Your task to perform on an android device: open chrome privacy settings Image 0: 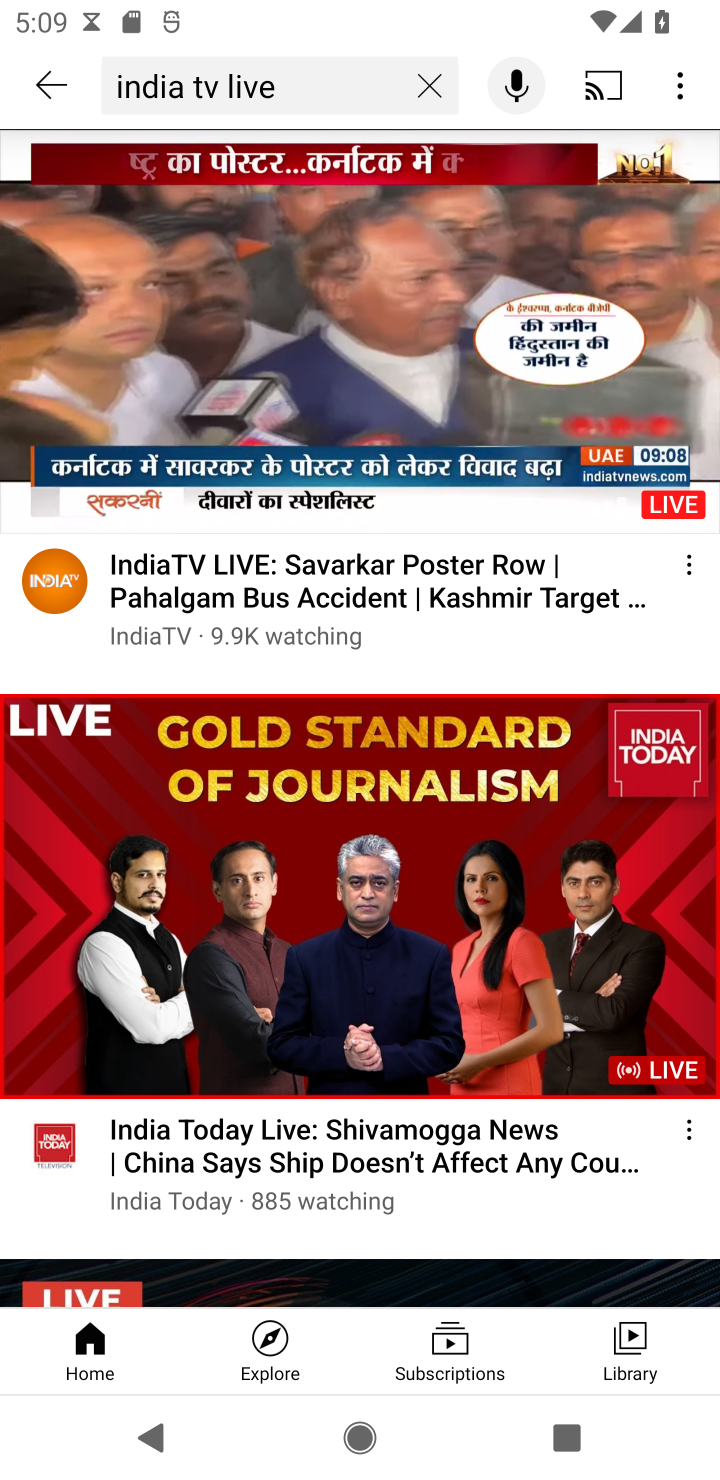
Step 0: press home button
Your task to perform on an android device: open chrome privacy settings Image 1: 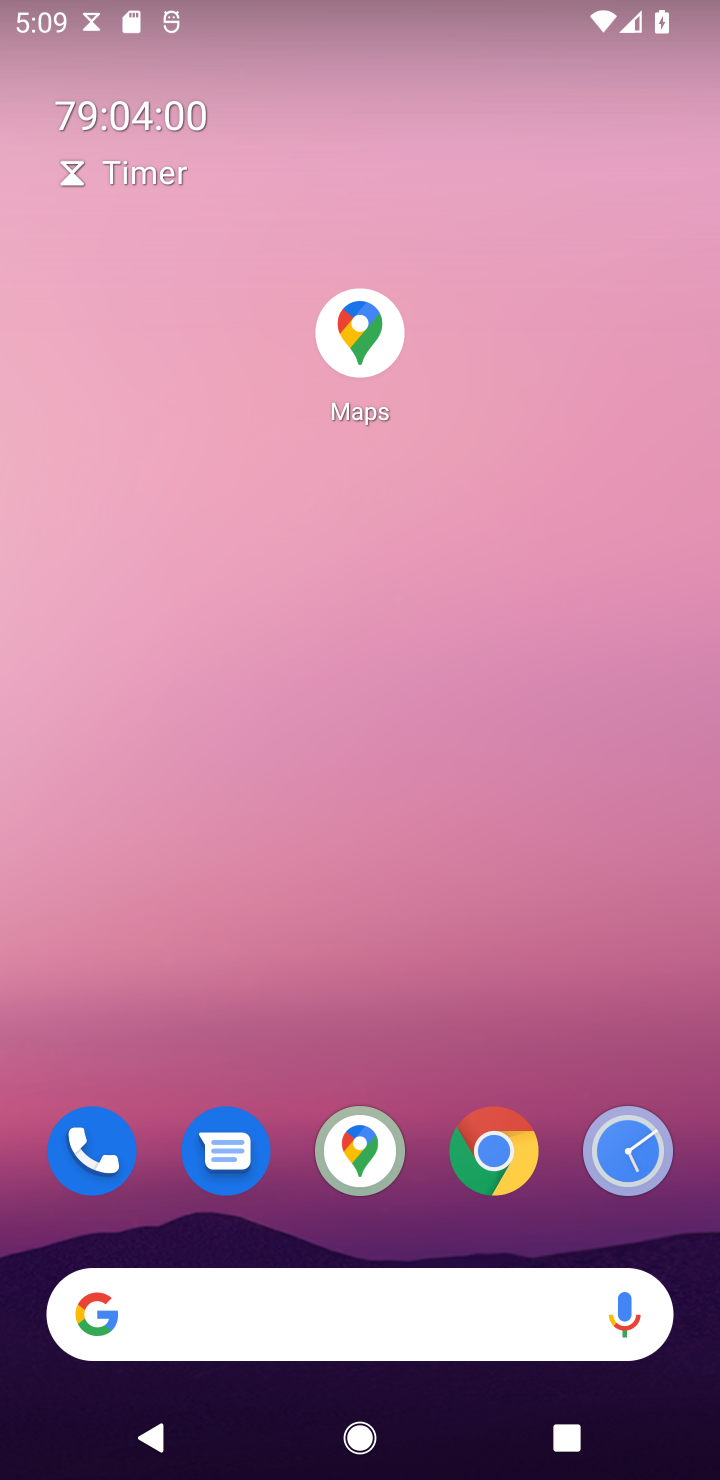
Step 1: drag from (297, 1210) to (321, 173)
Your task to perform on an android device: open chrome privacy settings Image 2: 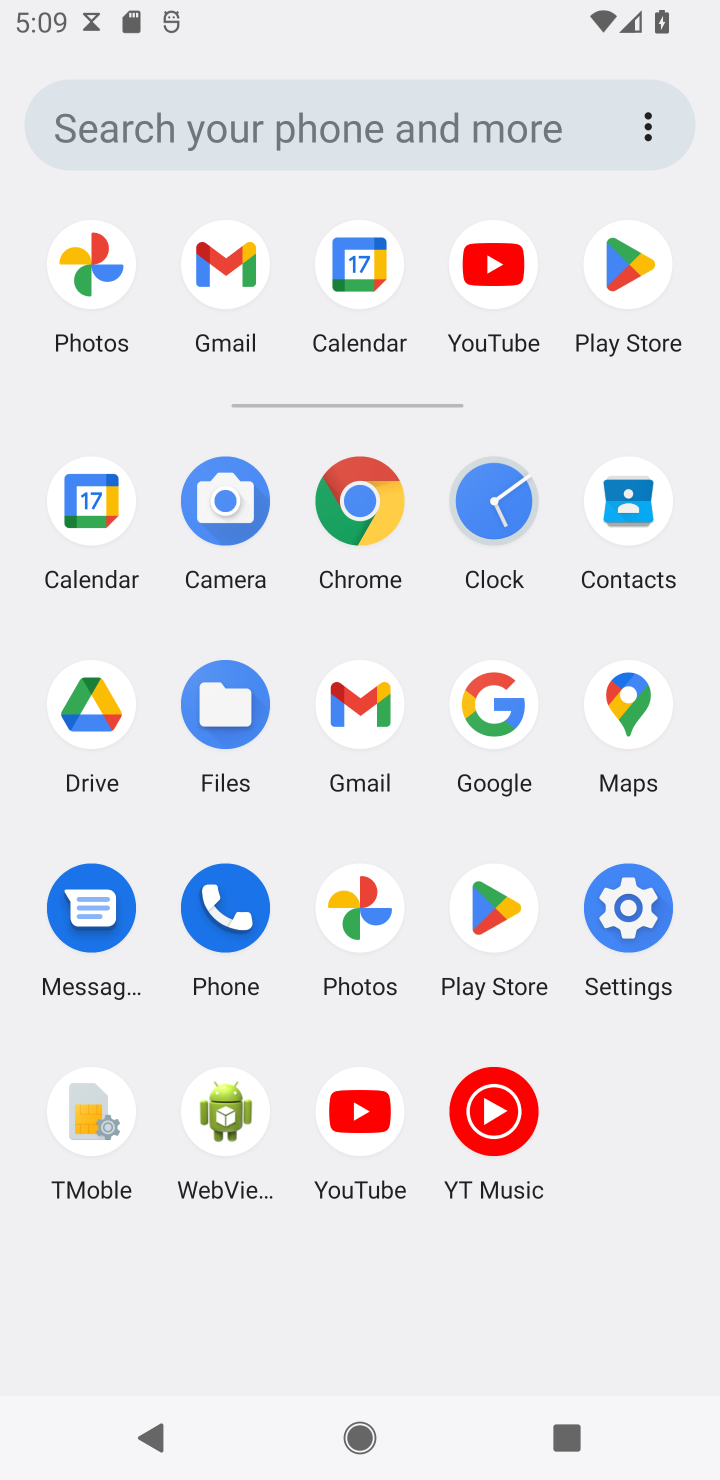
Step 2: click (601, 911)
Your task to perform on an android device: open chrome privacy settings Image 3: 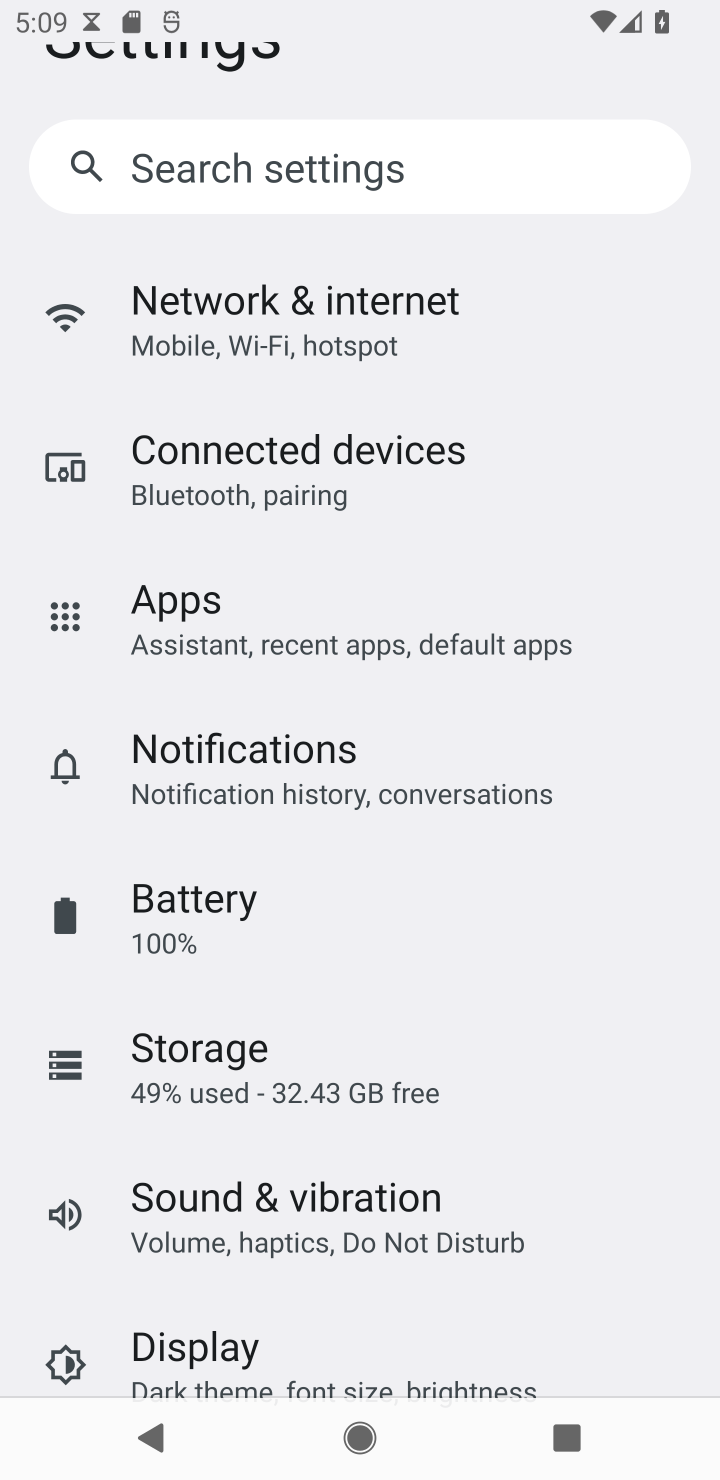
Step 3: drag from (237, 1196) to (324, 308)
Your task to perform on an android device: open chrome privacy settings Image 4: 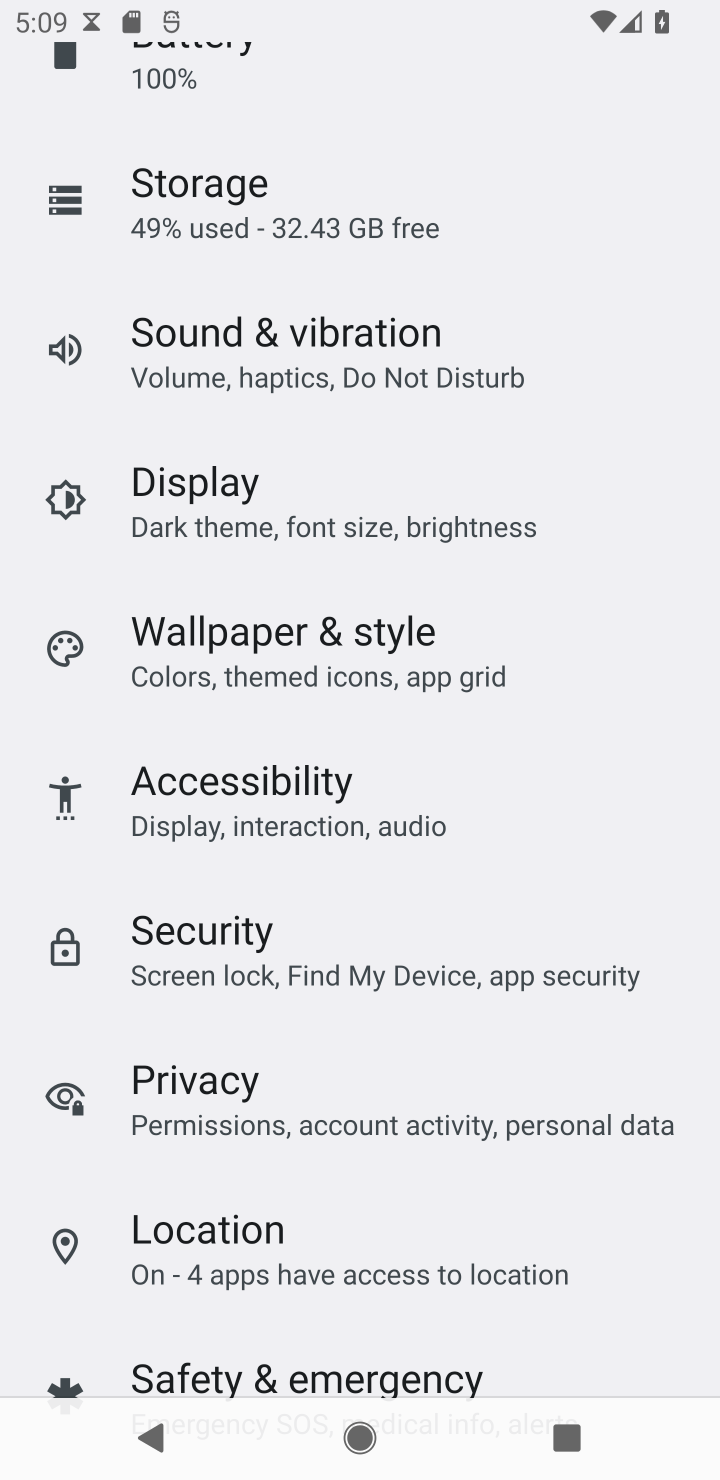
Step 4: click (300, 1117)
Your task to perform on an android device: open chrome privacy settings Image 5: 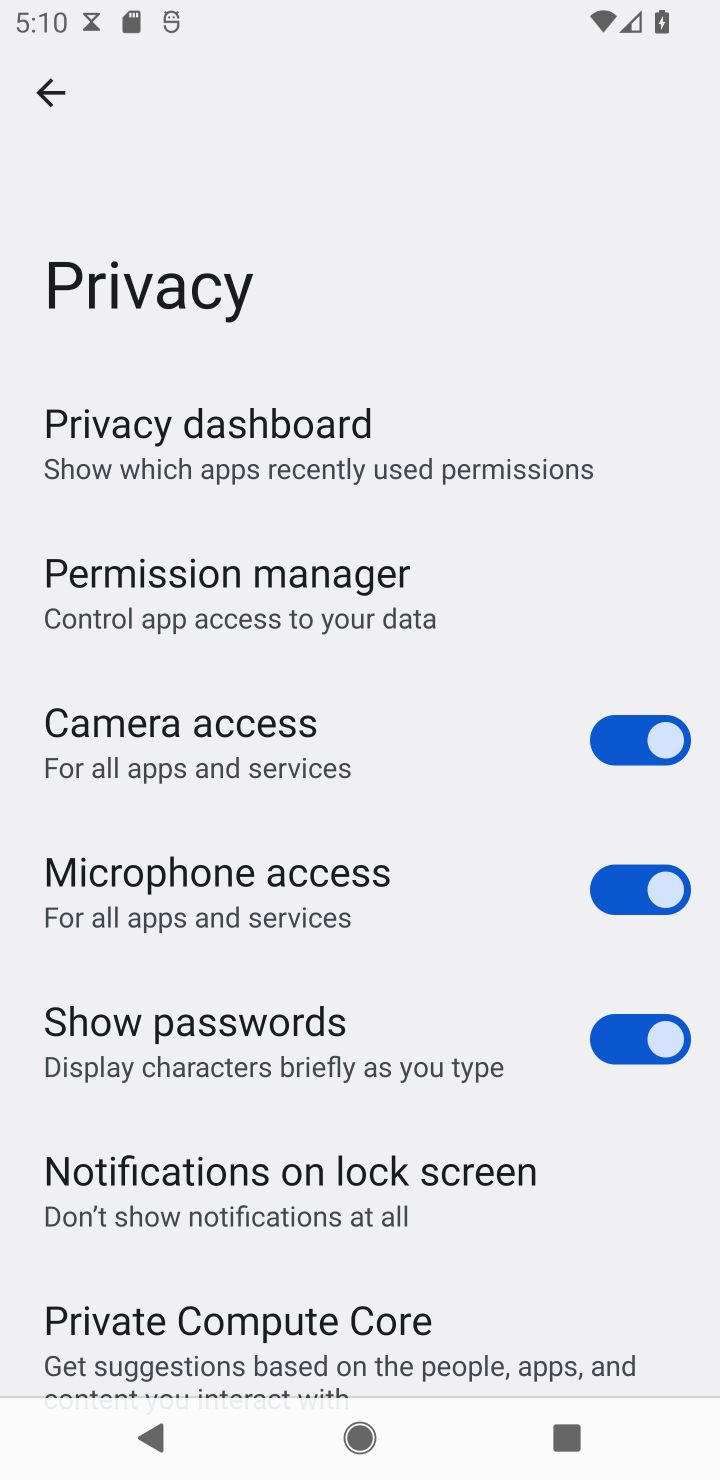
Step 5: task complete